Your task to perform on an android device: turn pop-ups on in chrome Image 0: 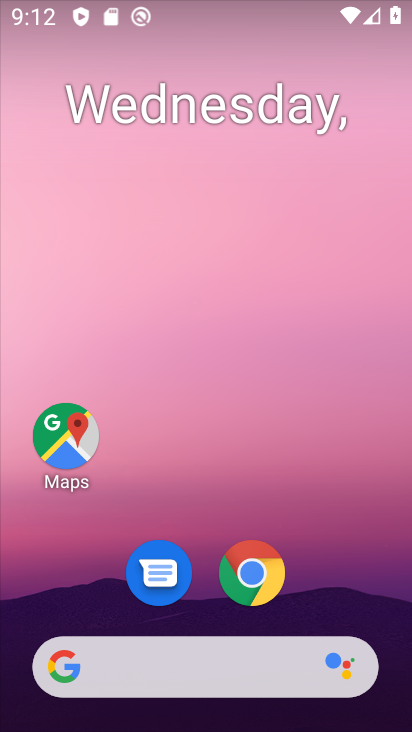
Step 0: click (240, 574)
Your task to perform on an android device: turn pop-ups on in chrome Image 1: 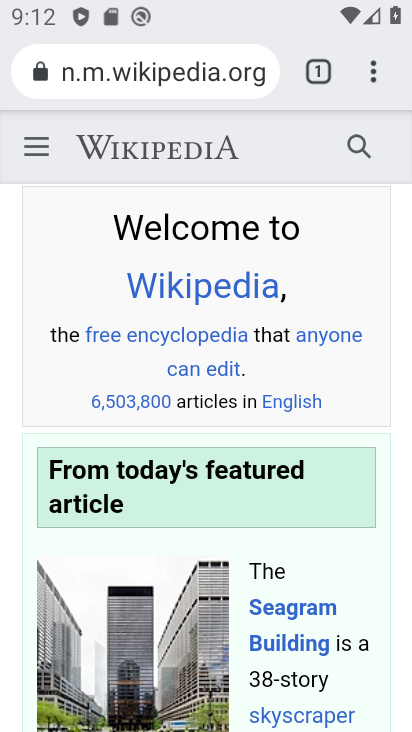
Step 1: click (370, 68)
Your task to perform on an android device: turn pop-ups on in chrome Image 2: 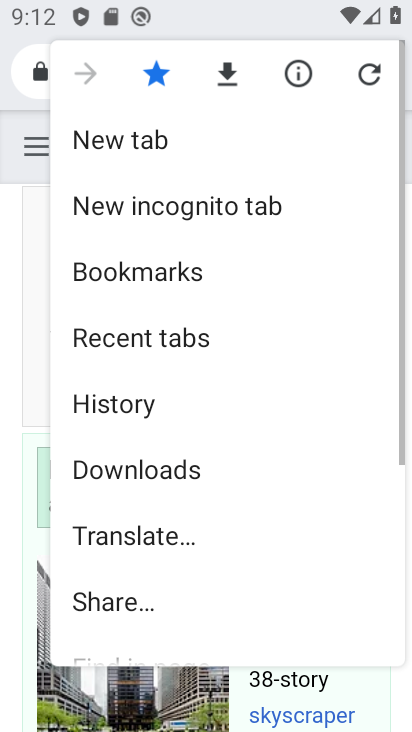
Step 2: drag from (163, 527) to (231, 147)
Your task to perform on an android device: turn pop-ups on in chrome Image 3: 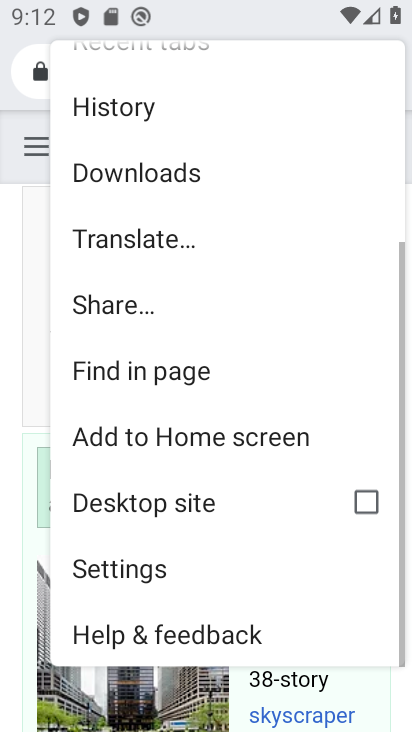
Step 3: click (118, 567)
Your task to perform on an android device: turn pop-ups on in chrome Image 4: 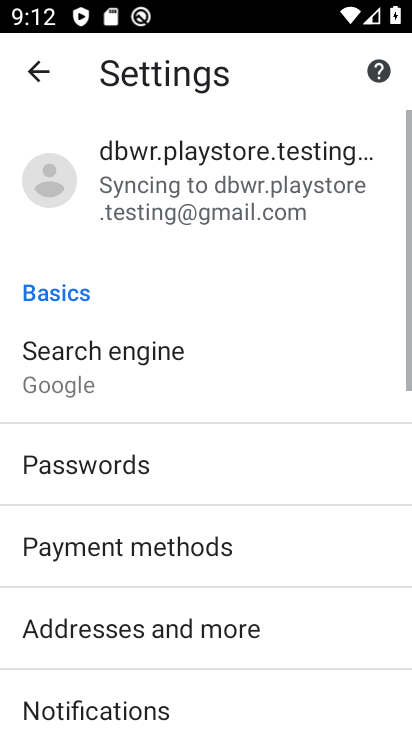
Step 4: drag from (225, 587) to (222, 201)
Your task to perform on an android device: turn pop-ups on in chrome Image 5: 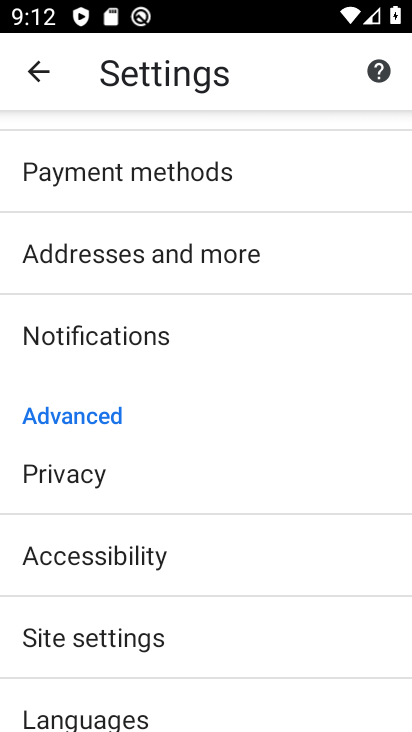
Step 5: click (91, 629)
Your task to perform on an android device: turn pop-ups on in chrome Image 6: 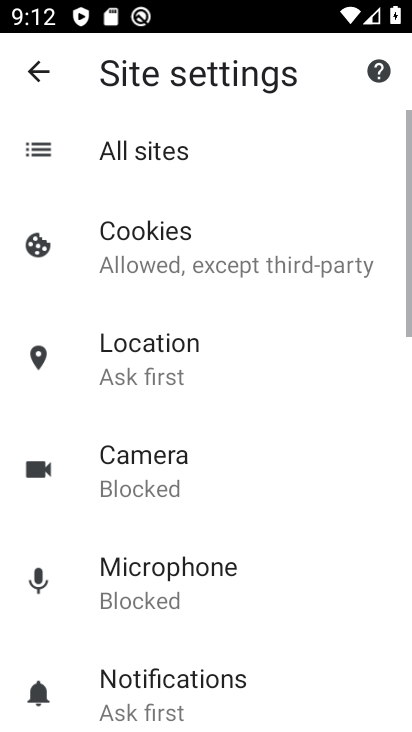
Step 6: drag from (256, 635) to (265, 247)
Your task to perform on an android device: turn pop-ups on in chrome Image 7: 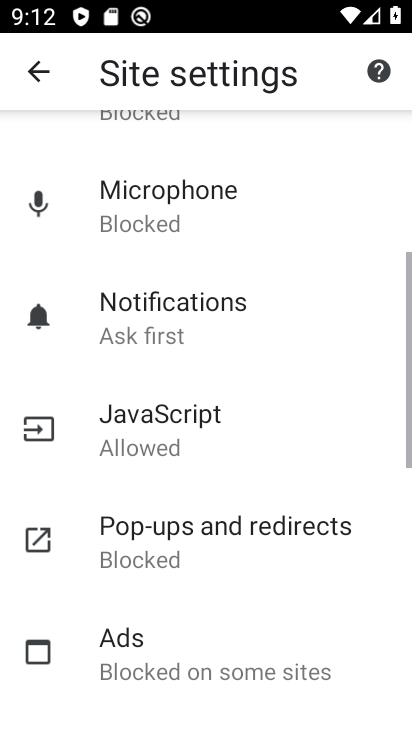
Step 7: click (163, 556)
Your task to perform on an android device: turn pop-ups on in chrome Image 8: 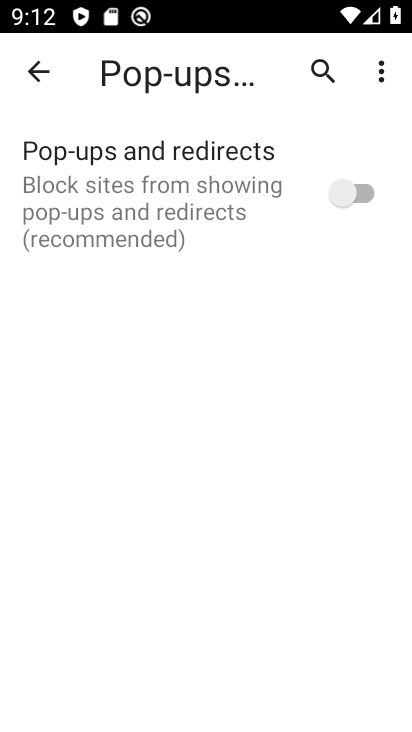
Step 8: click (350, 201)
Your task to perform on an android device: turn pop-ups on in chrome Image 9: 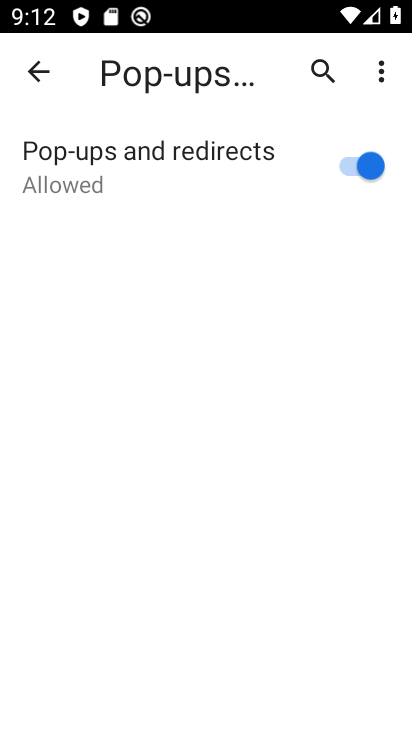
Step 9: task complete